Your task to perform on an android device: open sync settings in chrome Image 0: 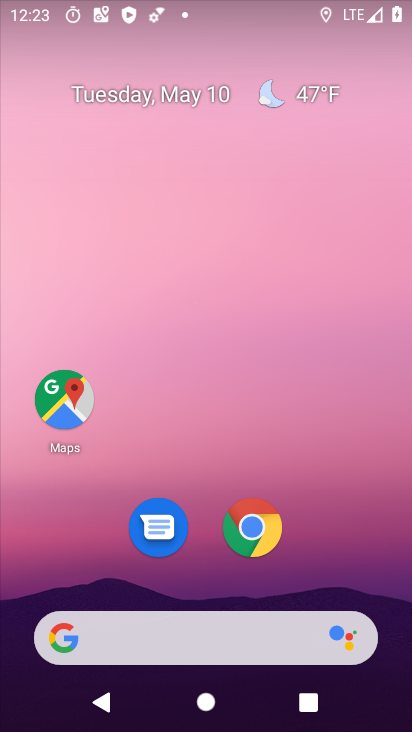
Step 0: drag from (331, 489) to (317, 45)
Your task to perform on an android device: open sync settings in chrome Image 1: 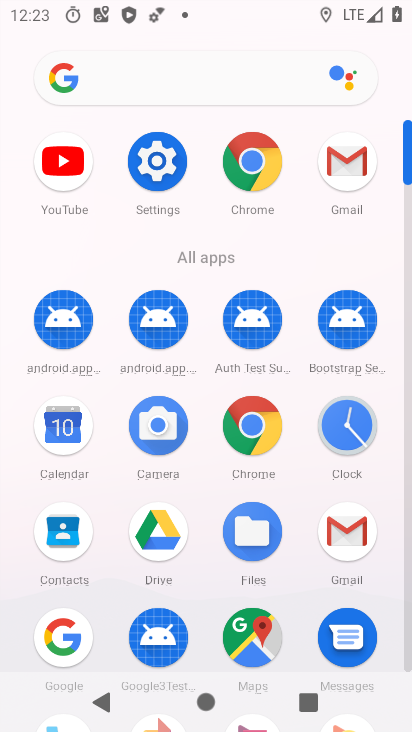
Step 1: click (248, 442)
Your task to perform on an android device: open sync settings in chrome Image 2: 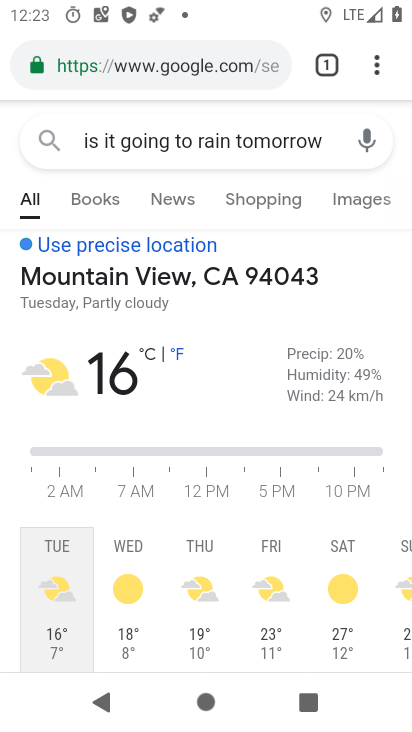
Step 2: drag from (376, 75) to (165, 589)
Your task to perform on an android device: open sync settings in chrome Image 3: 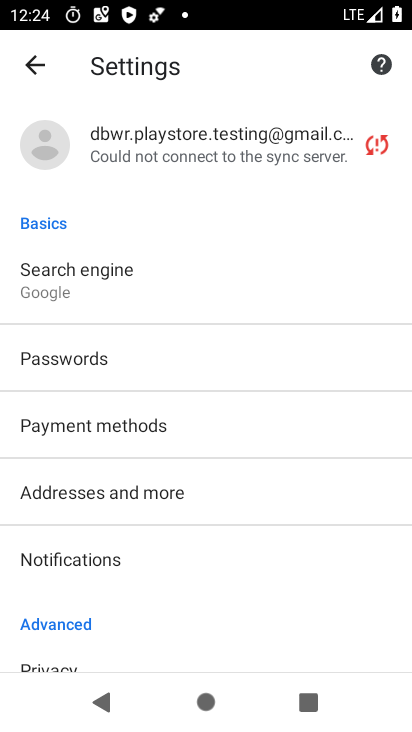
Step 3: drag from (208, 614) to (266, 285)
Your task to perform on an android device: open sync settings in chrome Image 4: 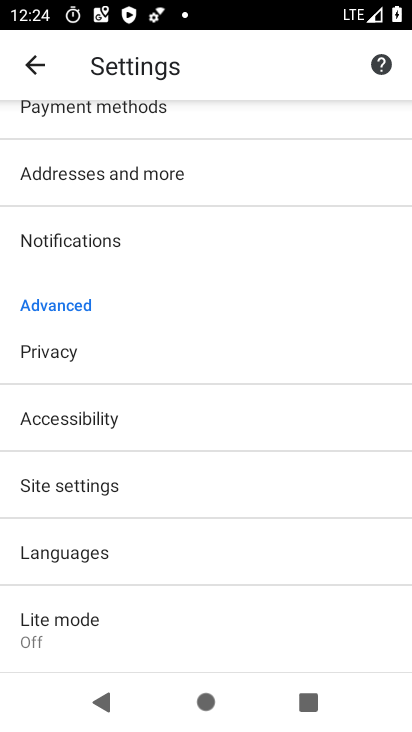
Step 4: click (211, 482)
Your task to perform on an android device: open sync settings in chrome Image 5: 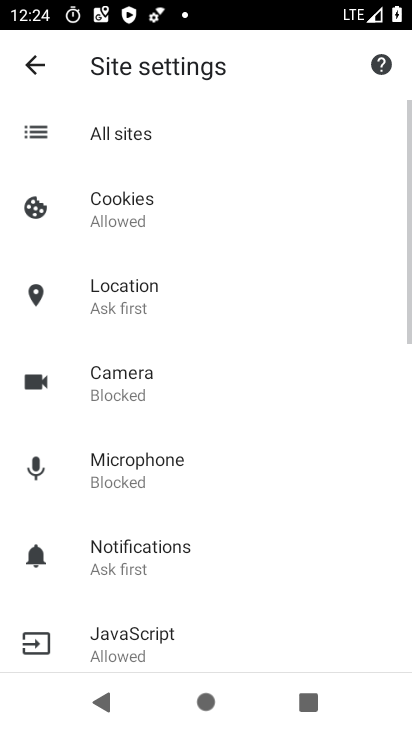
Step 5: drag from (289, 606) to (272, 196)
Your task to perform on an android device: open sync settings in chrome Image 6: 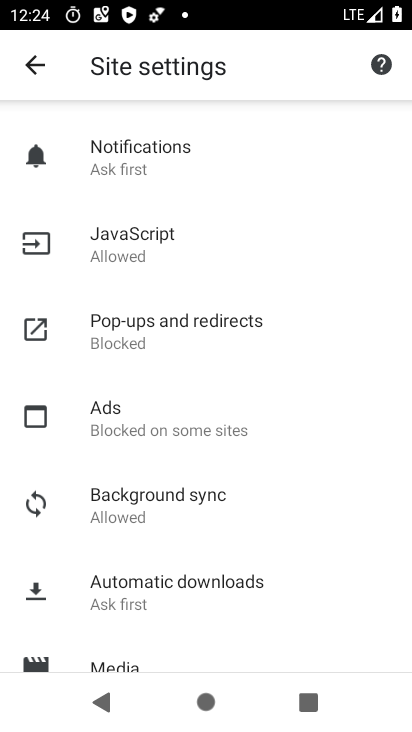
Step 6: drag from (312, 540) to (320, 350)
Your task to perform on an android device: open sync settings in chrome Image 7: 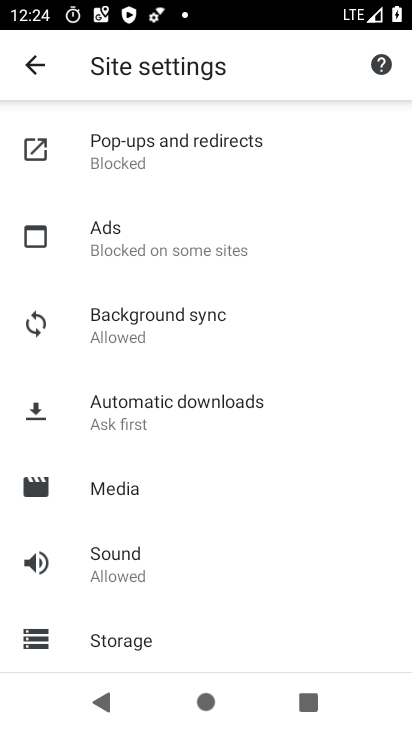
Step 7: click (229, 322)
Your task to perform on an android device: open sync settings in chrome Image 8: 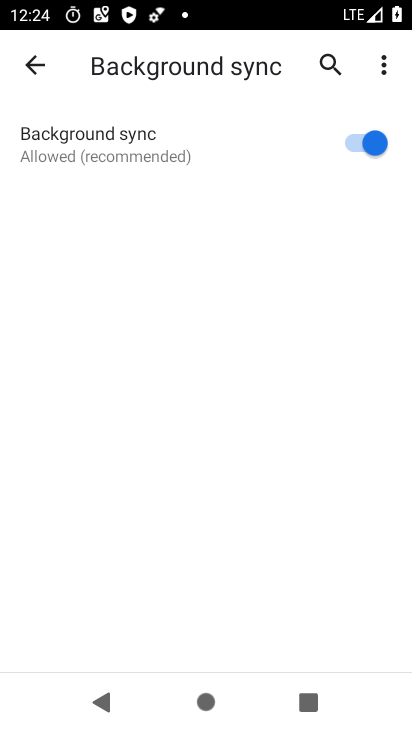
Step 8: task complete